Your task to perform on an android device: Turn on the flashlight Image 0: 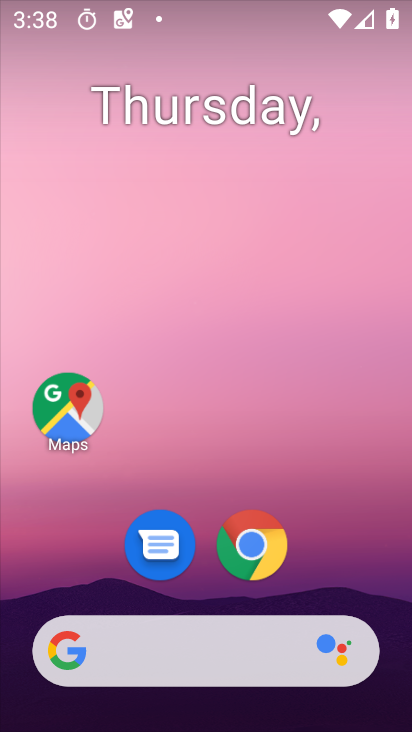
Step 0: drag from (216, 697) to (233, 58)
Your task to perform on an android device: Turn on the flashlight Image 1: 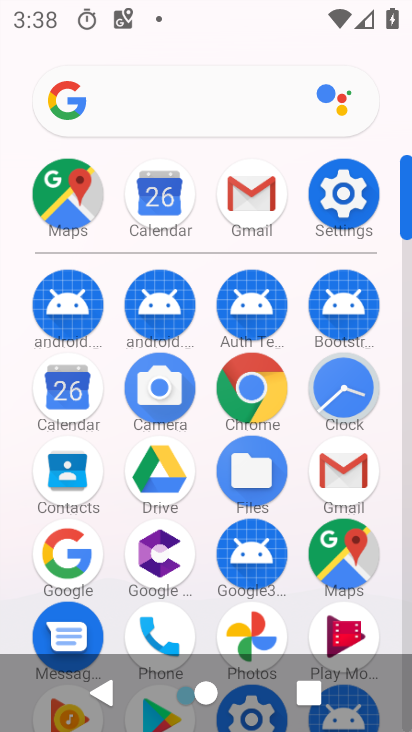
Step 1: click (341, 203)
Your task to perform on an android device: Turn on the flashlight Image 2: 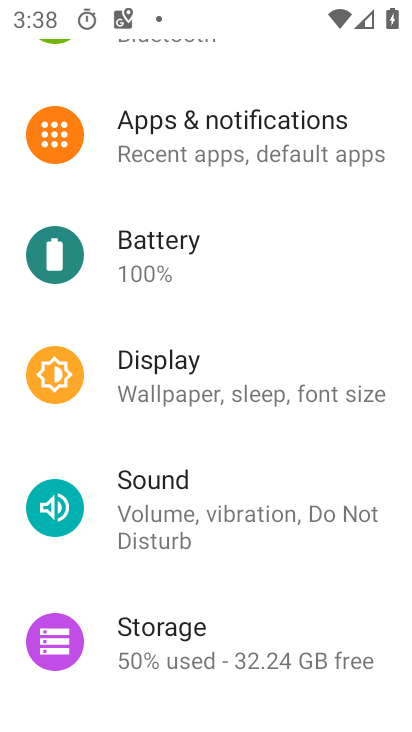
Step 2: task complete